Your task to perform on an android device: turn notification dots off Image 0: 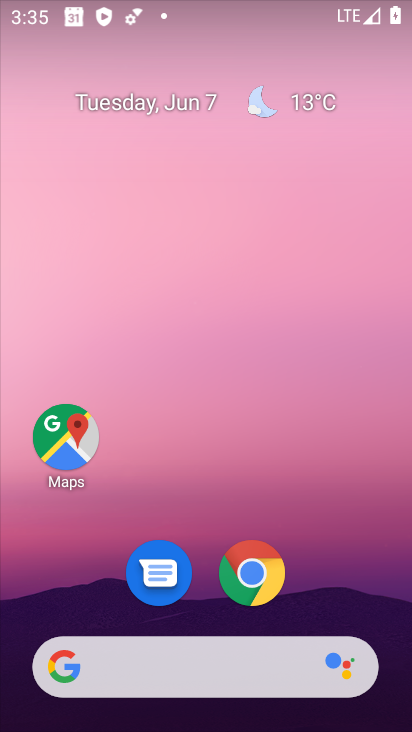
Step 0: drag from (359, 616) to (275, 224)
Your task to perform on an android device: turn notification dots off Image 1: 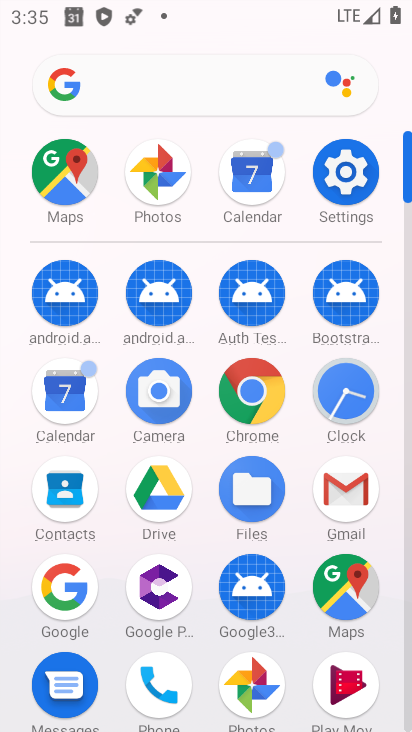
Step 1: click (360, 173)
Your task to perform on an android device: turn notification dots off Image 2: 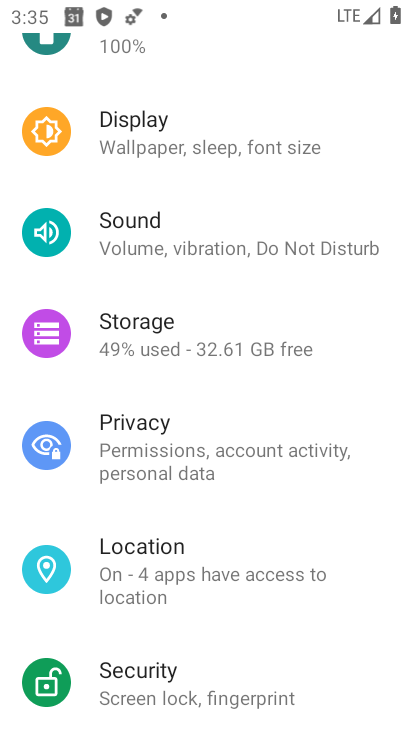
Step 2: drag from (346, 179) to (409, 653)
Your task to perform on an android device: turn notification dots off Image 3: 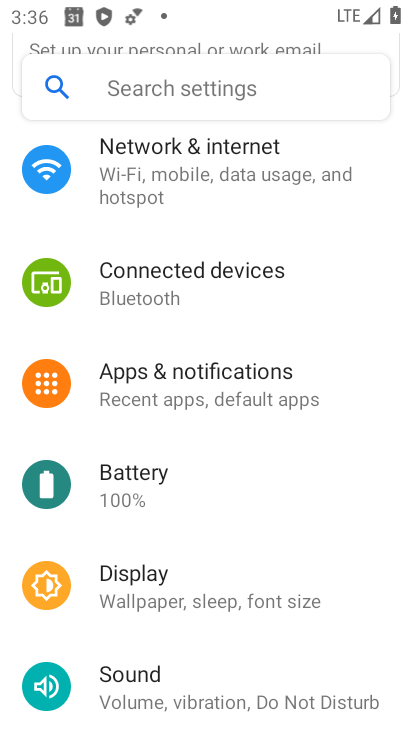
Step 3: click (271, 414)
Your task to perform on an android device: turn notification dots off Image 4: 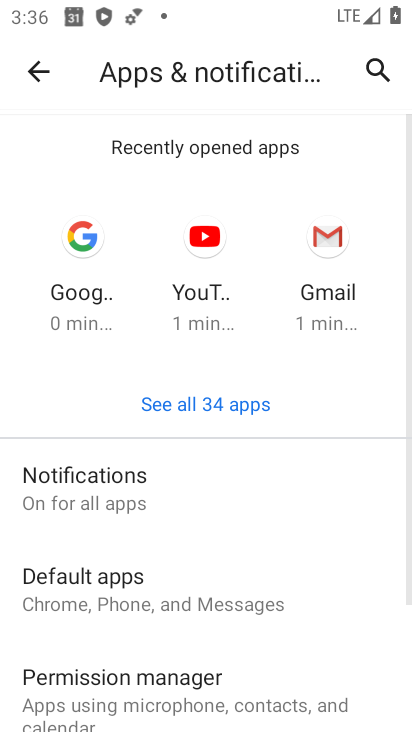
Step 4: drag from (309, 492) to (256, 123)
Your task to perform on an android device: turn notification dots off Image 5: 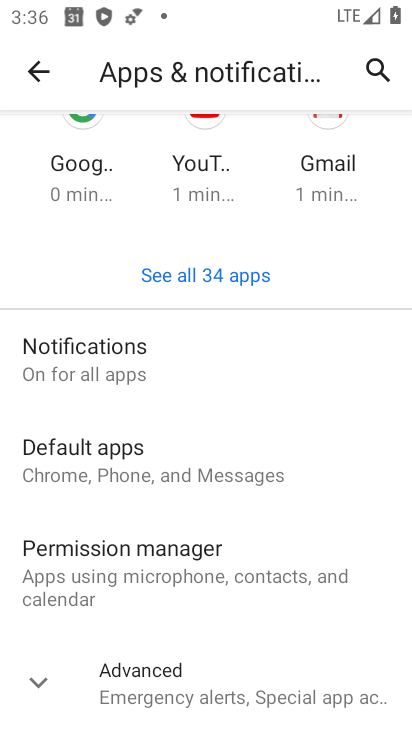
Step 5: click (289, 370)
Your task to perform on an android device: turn notification dots off Image 6: 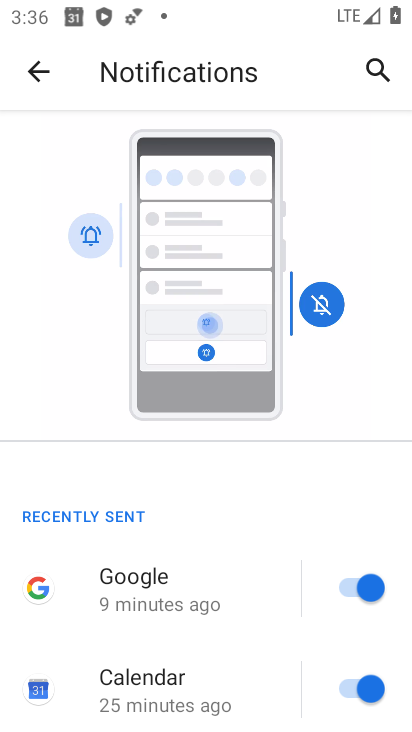
Step 6: drag from (296, 681) to (203, 293)
Your task to perform on an android device: turn notification dots off Image 7: 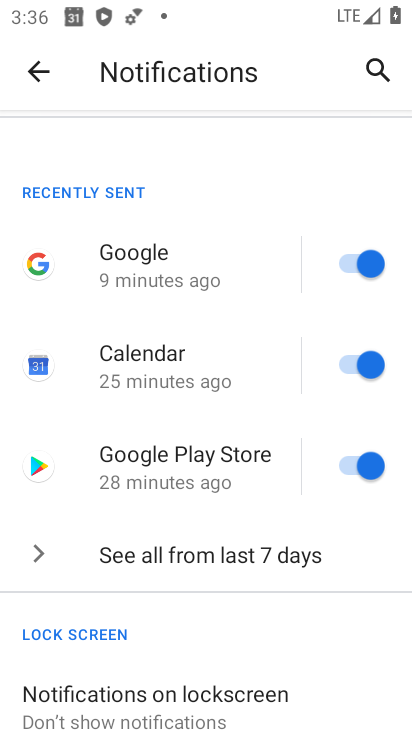
Step 7: drag from (329, 638) to (187, 141)
Your task to perform on an android device: turn notification dots off Image 8: 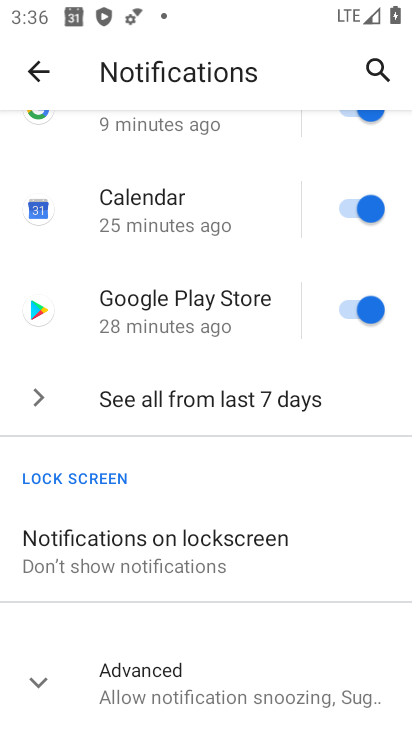
Step 8: click (257, 686)
Your task to perform on an android device: turn notification dots off Image 9: 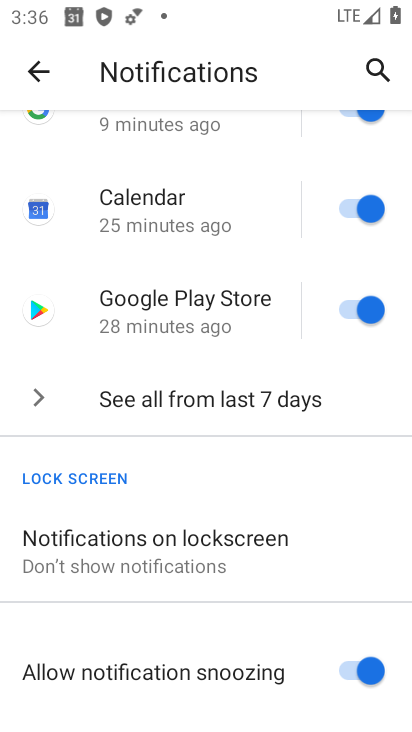
Step 9: drag from (281, 625) to (190, 216)
Your task to perform on an android device: turn notification dots off Image 10: 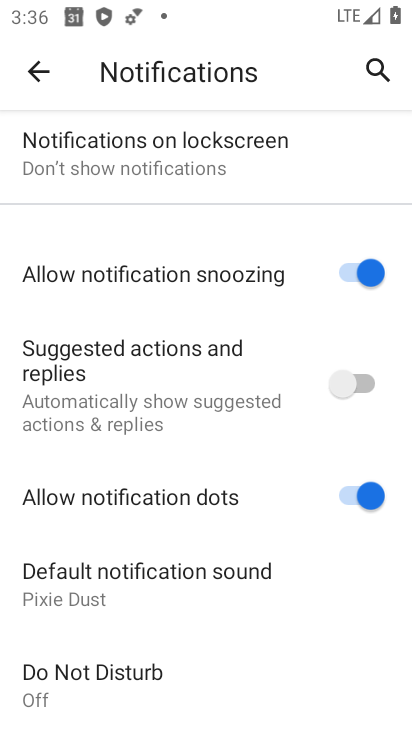
Step 10: click (351, 493)
Your task to perform on an android device: turn notification dots off Image 11: 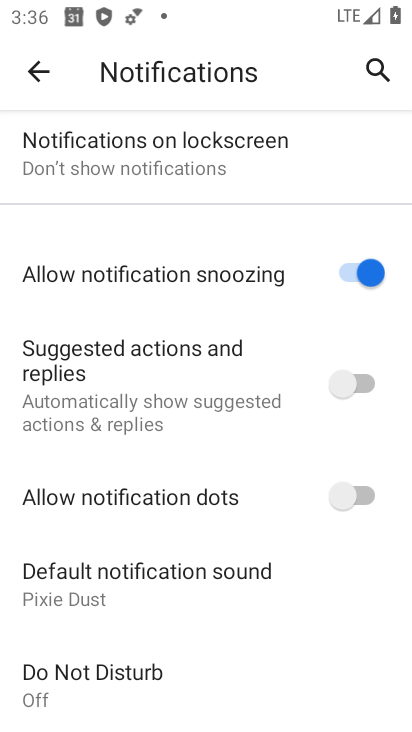
Step 11: task complete